Your task to perform on an android device: set an alarm Image 0: 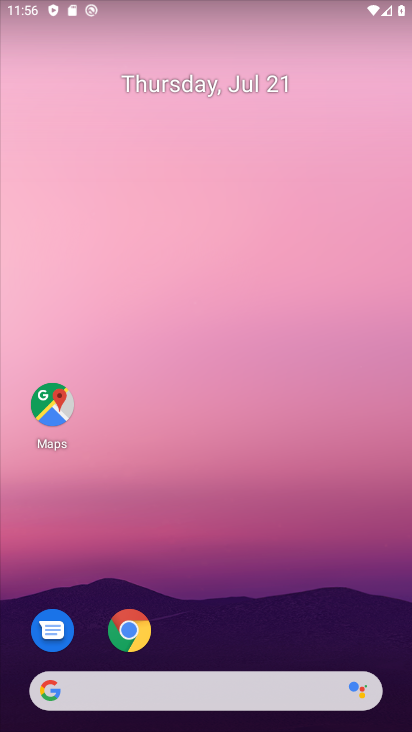
Step 0: drag from (230, 641) to (133, 151)
Your task to perform on an android device: set an alarm Image 1: 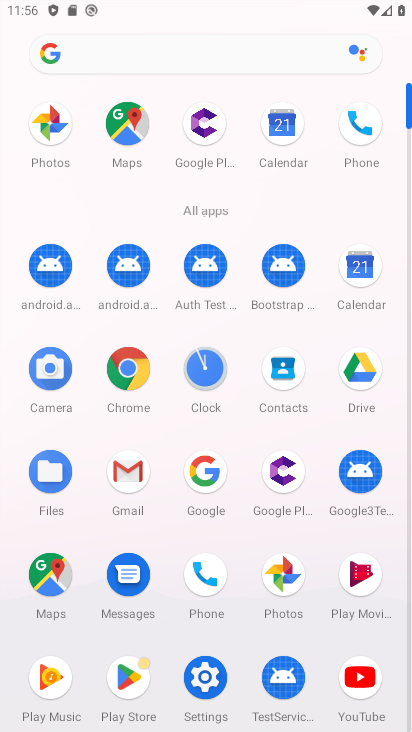
Step 1: click (210, 367)
Your task to perform on an android device: set an alarm Image 2: 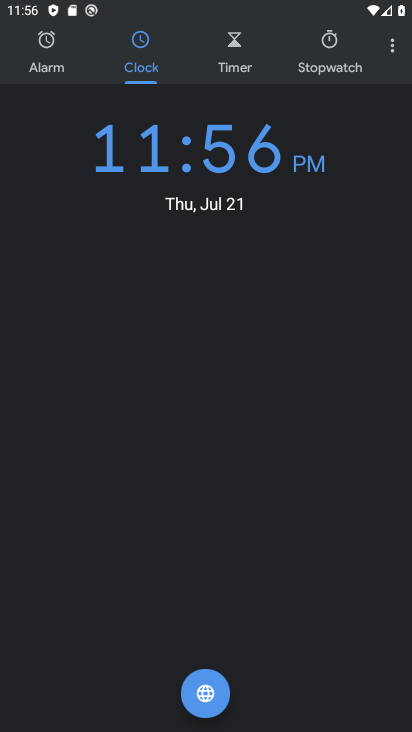
Step 2: click (49, 46)
Your task to perform on an android device: set an alarm Image 3: 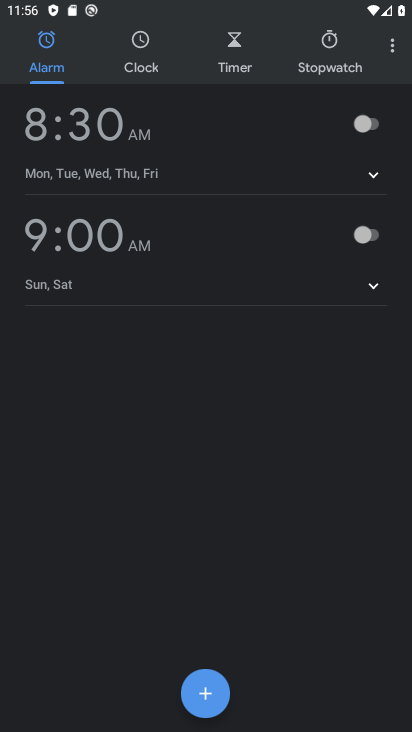
Step 3: click (206, 701)
Your task to perform on an android device: set an alarm Image 4: 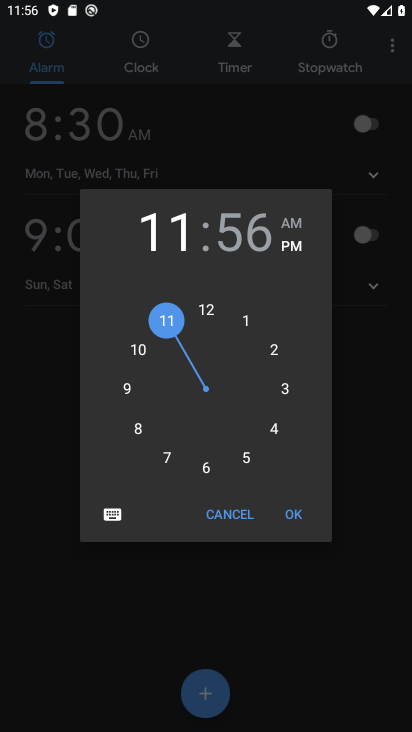
Step 4: click (294, 511)
Your task to perform on an android device: set an alarm Image 5: 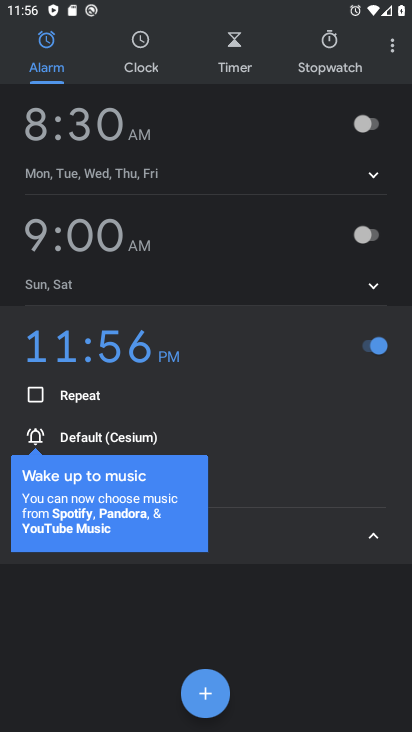
Step 5: click (371, 530)
Your task to perform on an android device: set an alarm Image 6: 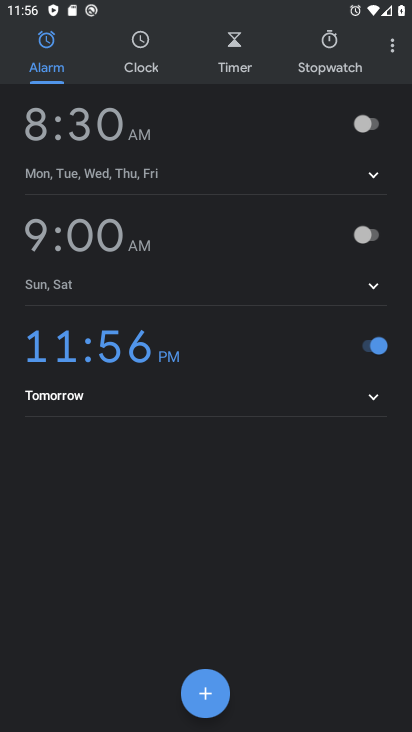
Step 6: task complete